Your task to perform on an android device: Open location settings Image 0: 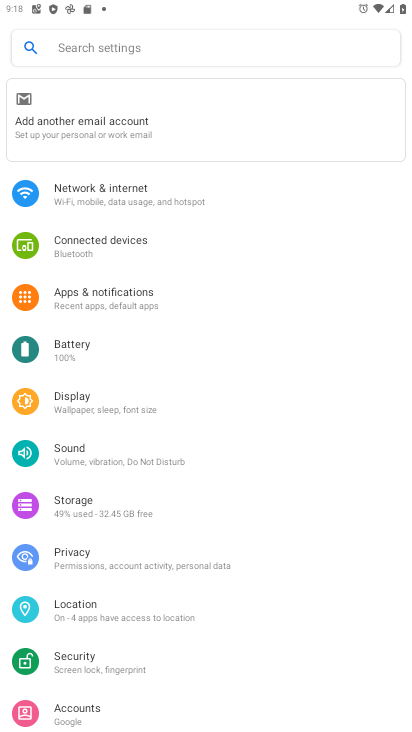
Step 0: click (122, 614)
Your task to perform on an android device: Open location settings Image 1: 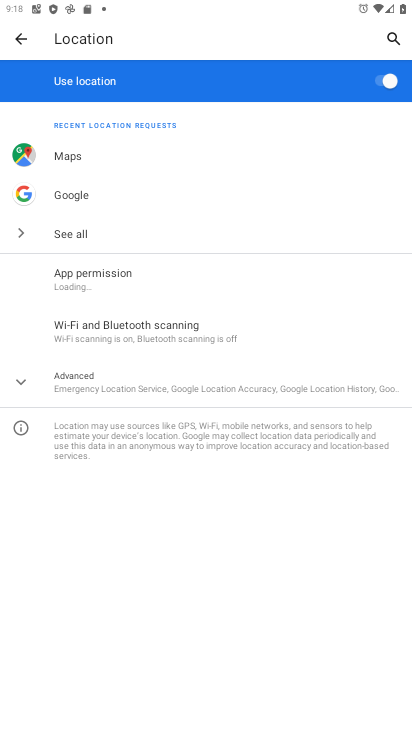
Step 1: task complete